Your task to perform on an android device: set an alarm Image 0: 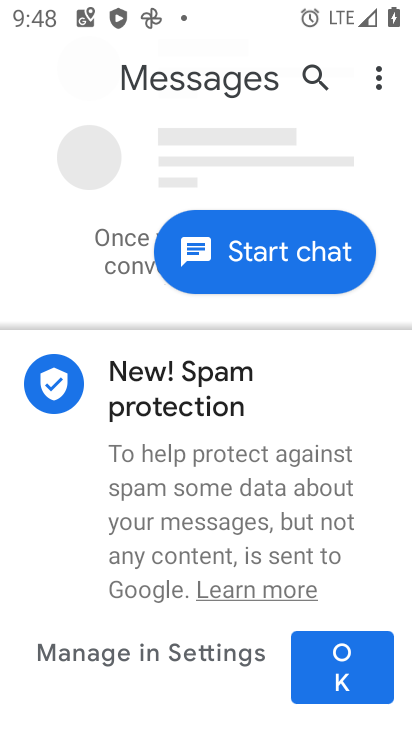
Step 0: press home button
Your task to perform on an android device: set an alarm Image 1: 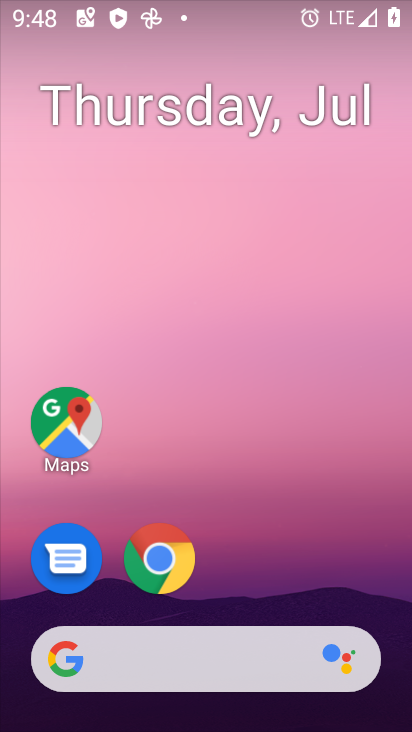
Step 1: drag from (333, 566) to (345, 129)
Your task to perform on an android device: set an alarm Image 2: 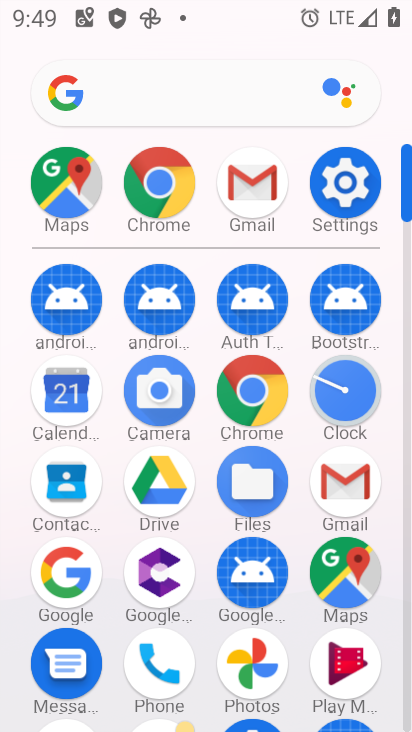
Step 2: click (346, 382)
Your task to perform on an android device: set an alarm Image 3: 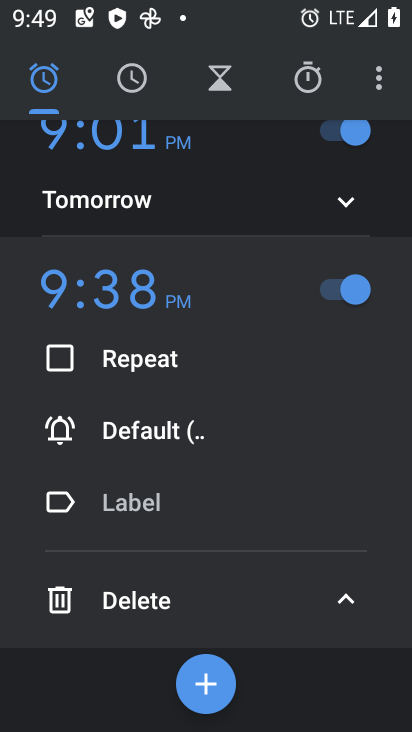
Step 3: click (264, 449)
Your task to perform on an android device: set an alarm Image 4: 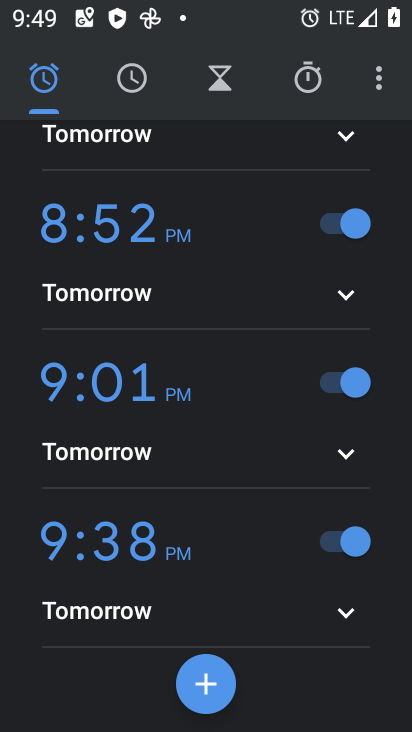
Step 4: click (190, 699)
Your task to perform on an android device: set an alarm Image 5: 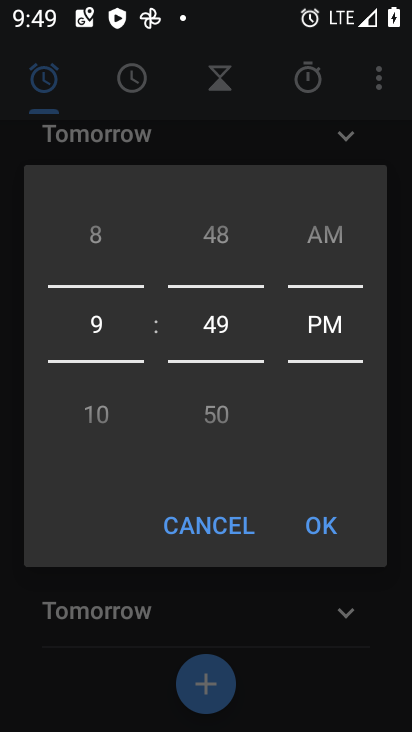
Step 5: click (315, 539)
Your task to perform on an android device: set an alarm Image 6: 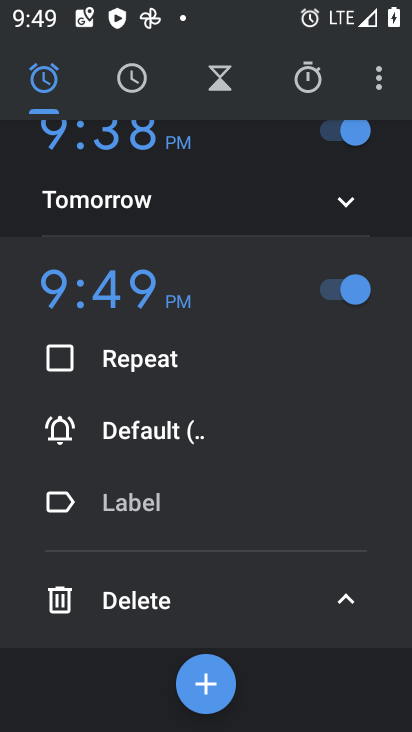
Step 6: task complete